Your task to perform on an android device: turn notification dots off Image 0: 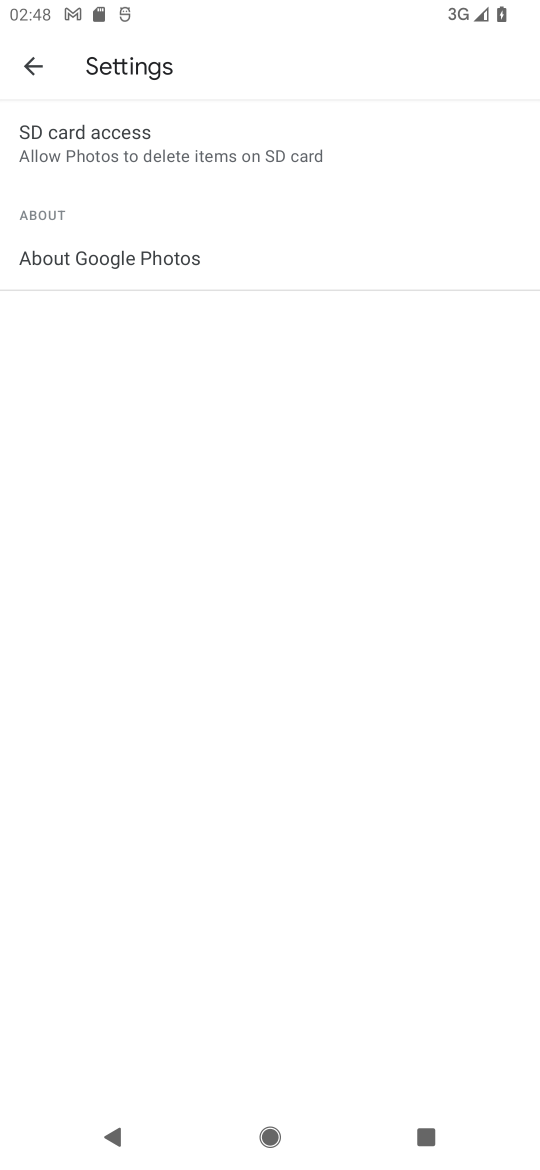
Step 0: press home button
Your task to perform on an android device: turn notification dots off Image 1: 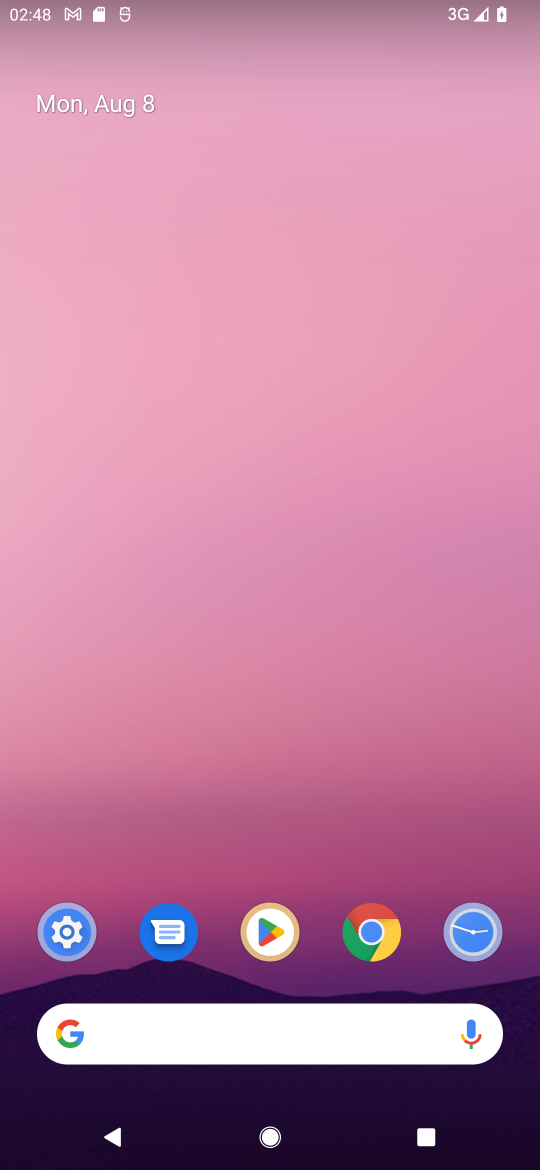
Step 1: drag from (226, 782) to (293, 46)
Your task to perform on an android device: turn notification dots off Image 2: 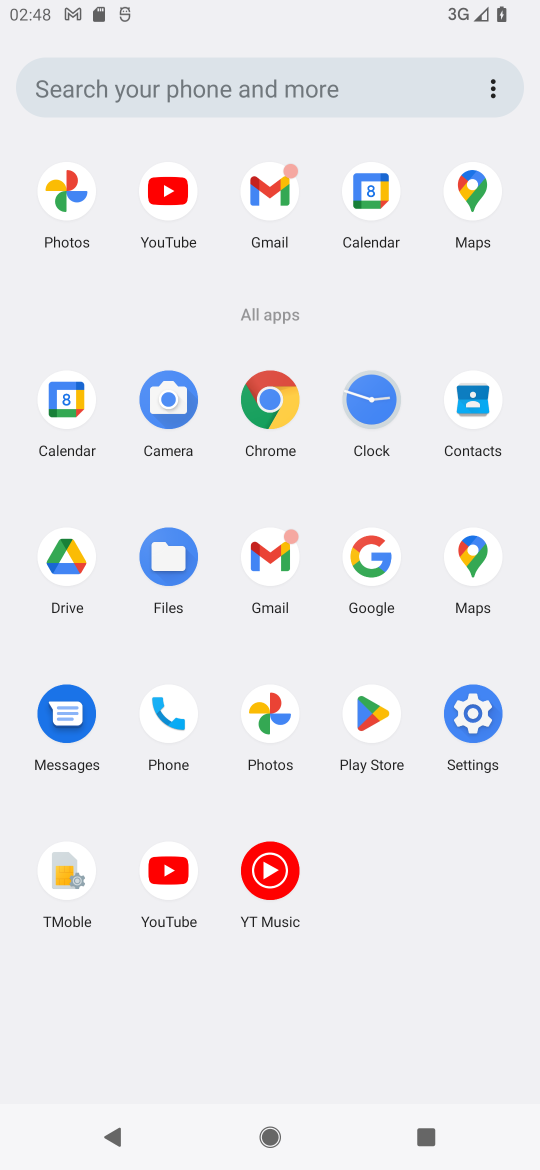
Step 2: click (478, 716)
Your task to perform on an android device: turn notification dots off Image 3: 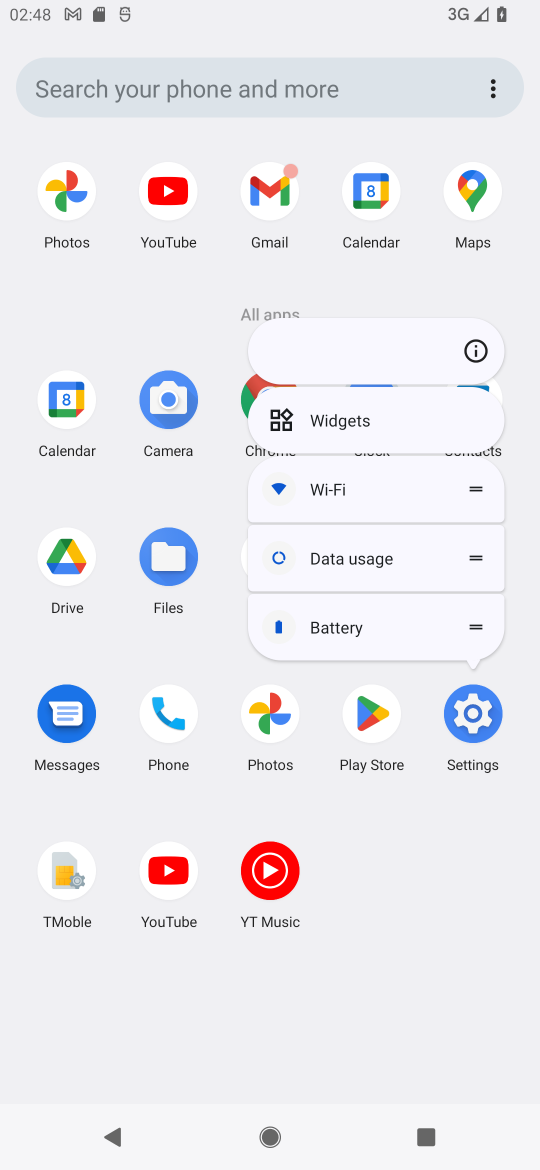
Step 3: click (476, 716)
Your task to perform on an android device: turn notification dots off Image 4: 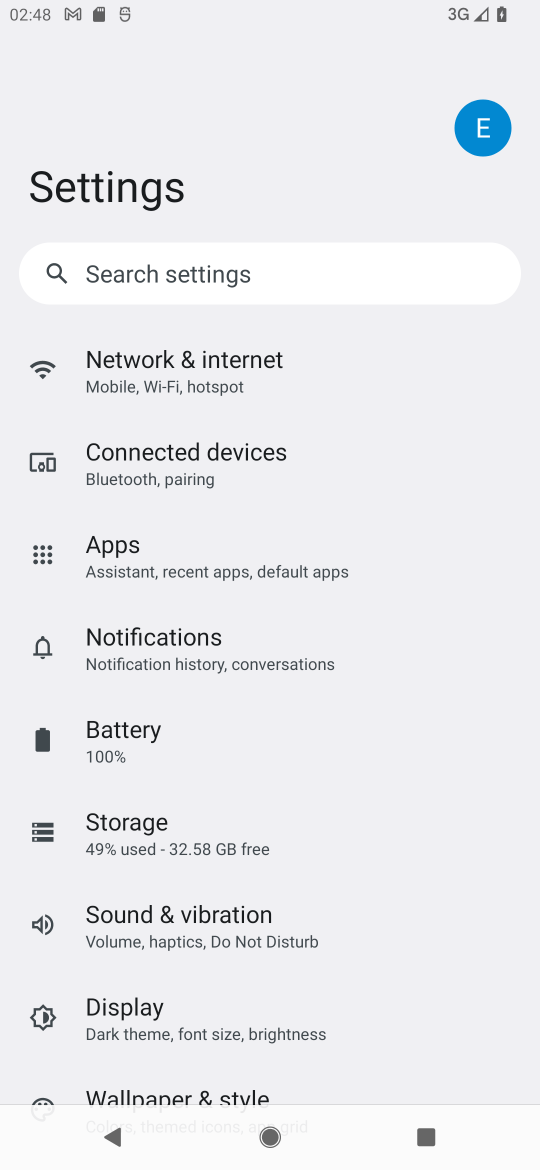
Step 4: click (202, 673)
Your task to perform on an android device: turn notification dots off Image 5: 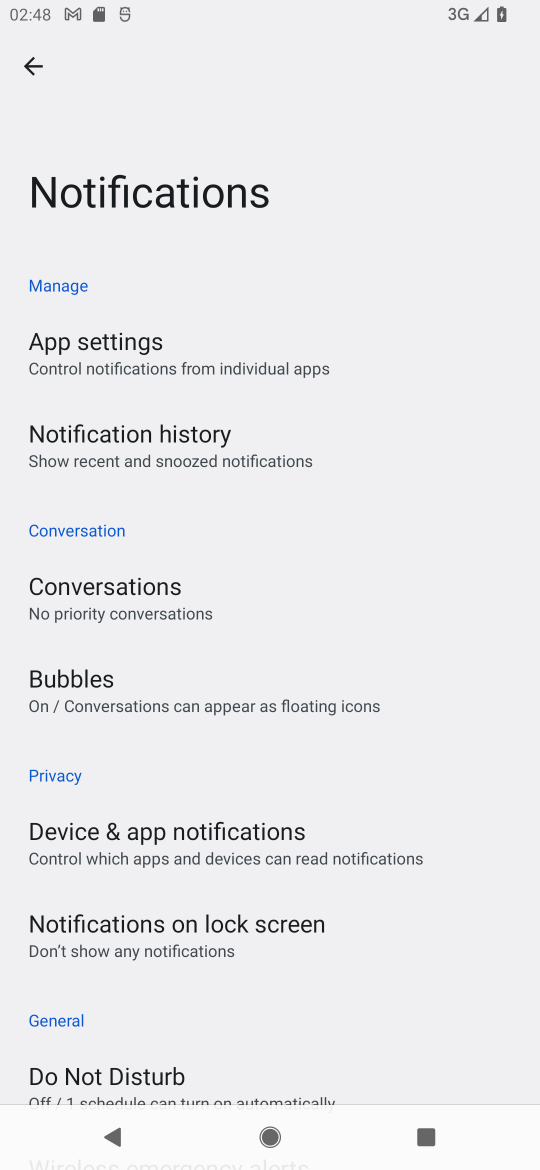
Step 5: drag from (170, 981) to (255, 347)
Your task to perform on an android device: turn notification dots off Image 6: 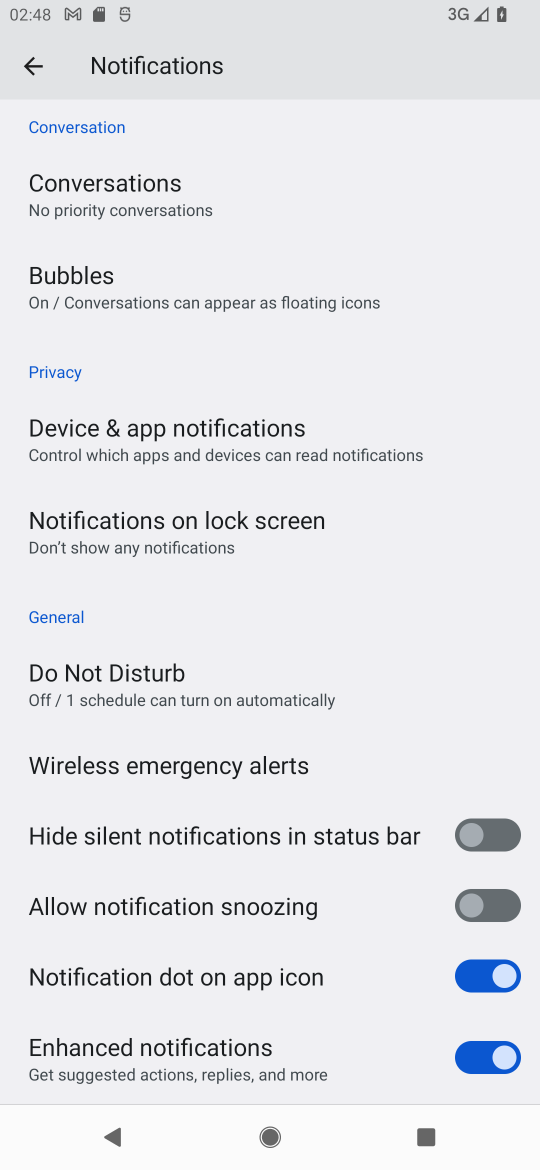
Step 6: drag from (222, 386) to (246, 1074)
Your task to perform on an android device: turn notification dots off Image 7: 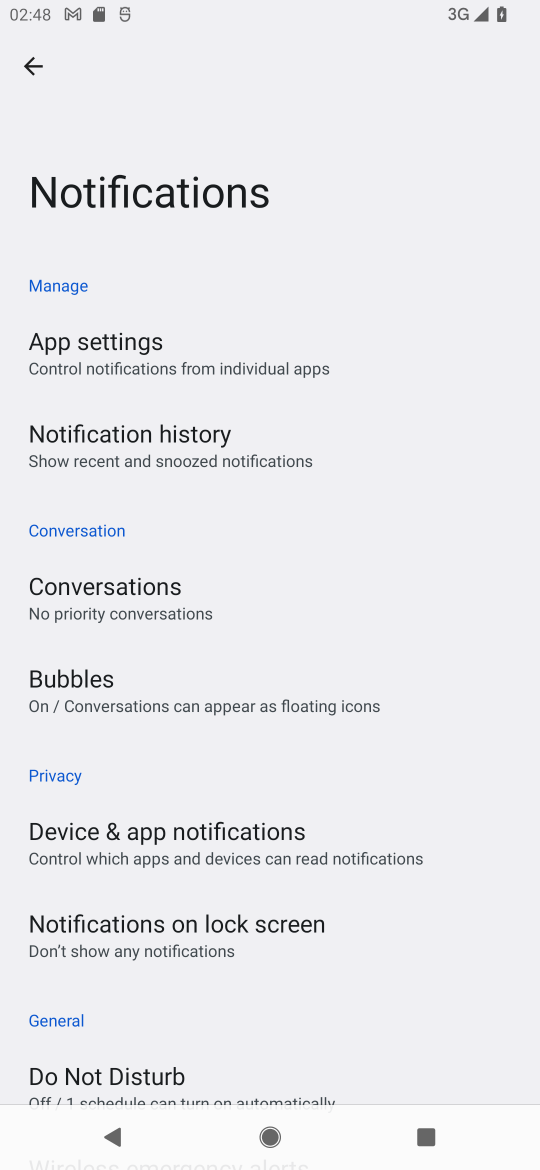
Step 7: drag from (268, 501) to (308, 960)
Your task to perform on an android device: turn notification dots off Image 8: 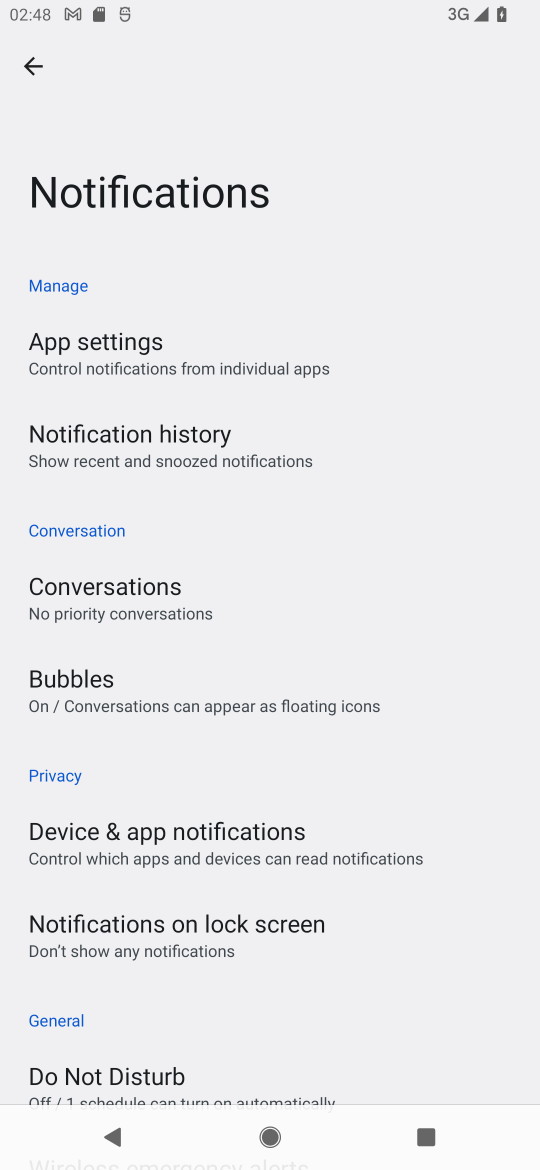
Step 8: drag from (330, 933) to (371, 303)
Your task to perform on an android device: turn notification dots off Image 9: 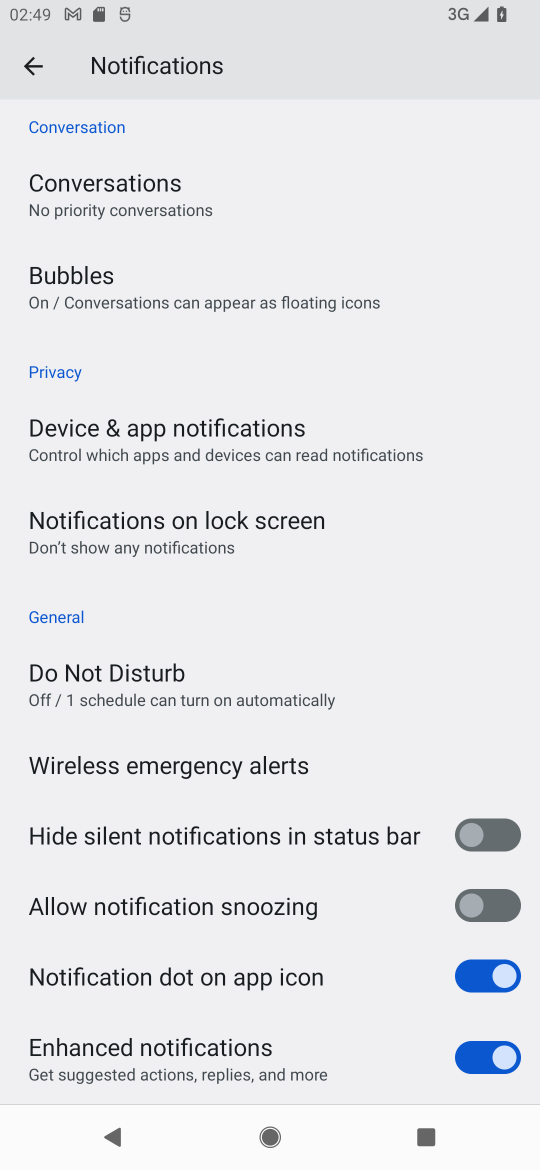
Step 9: drag from (324, 919) to (361, 464)
Your task to perform on an android device: turn notification dots off Image 10: 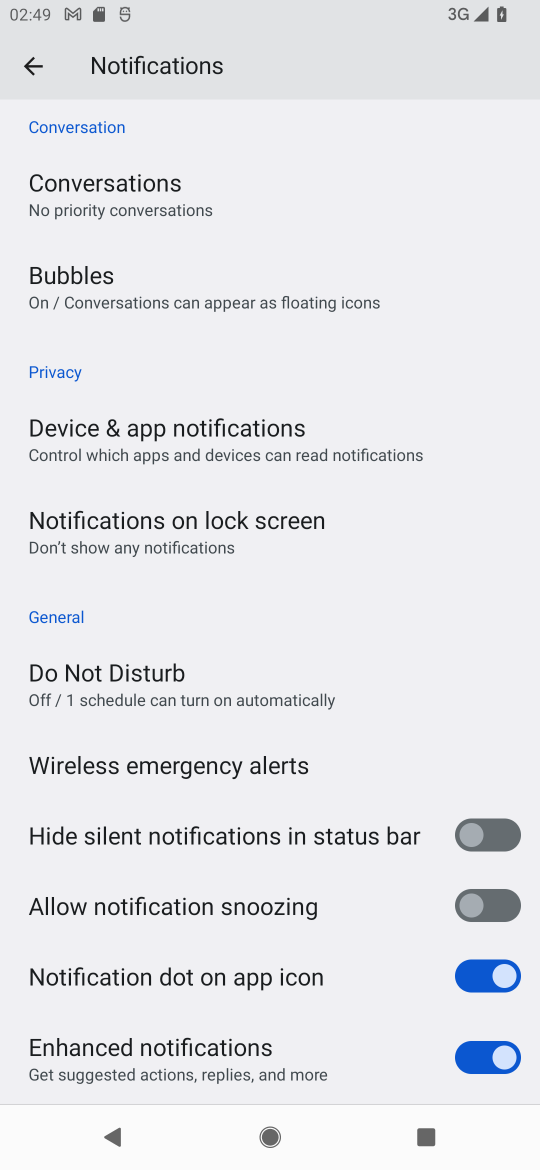
Step 10: click (183, 441)
Your task to perform on an android device: turn notification dots off Image 11: 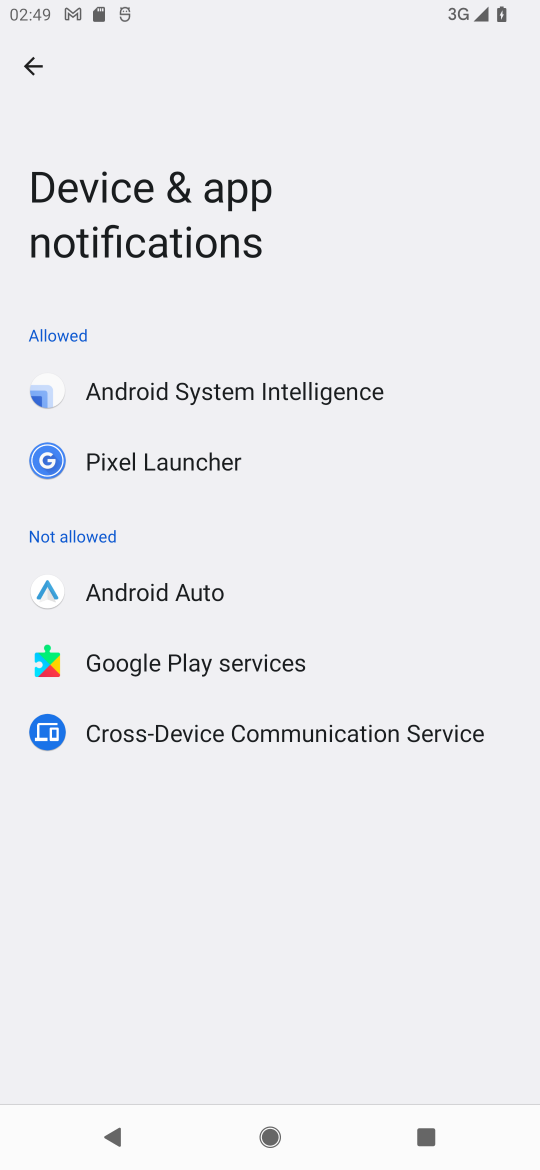
Step 11: click (31, 81)
Your task to perform on an android device: turn notification dots off Image 12: 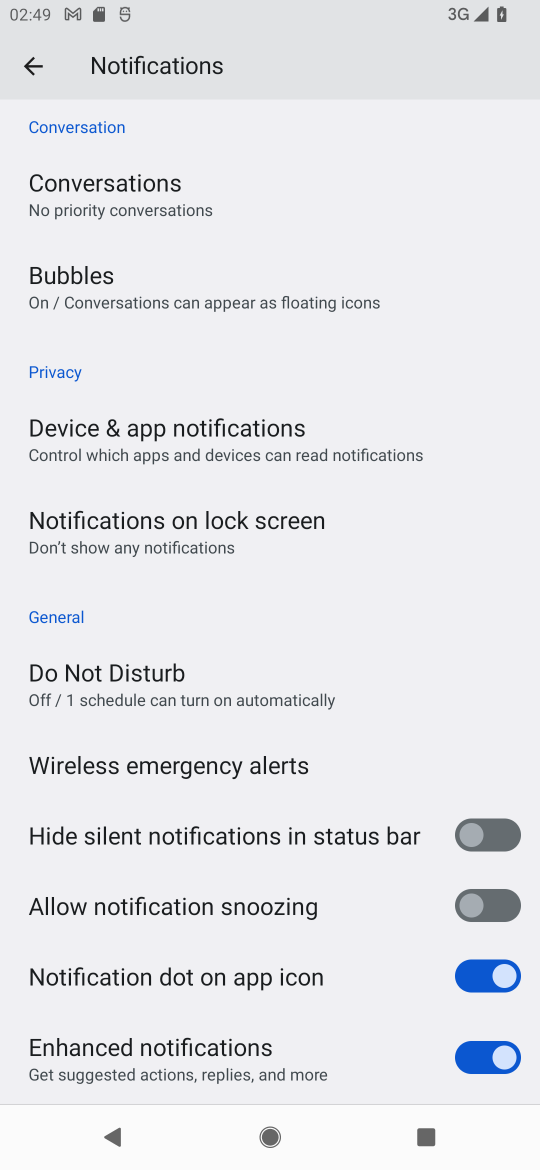
Step 12: click (172, 519)
Your task to perform on an android device: turn notification dots off Image 13: 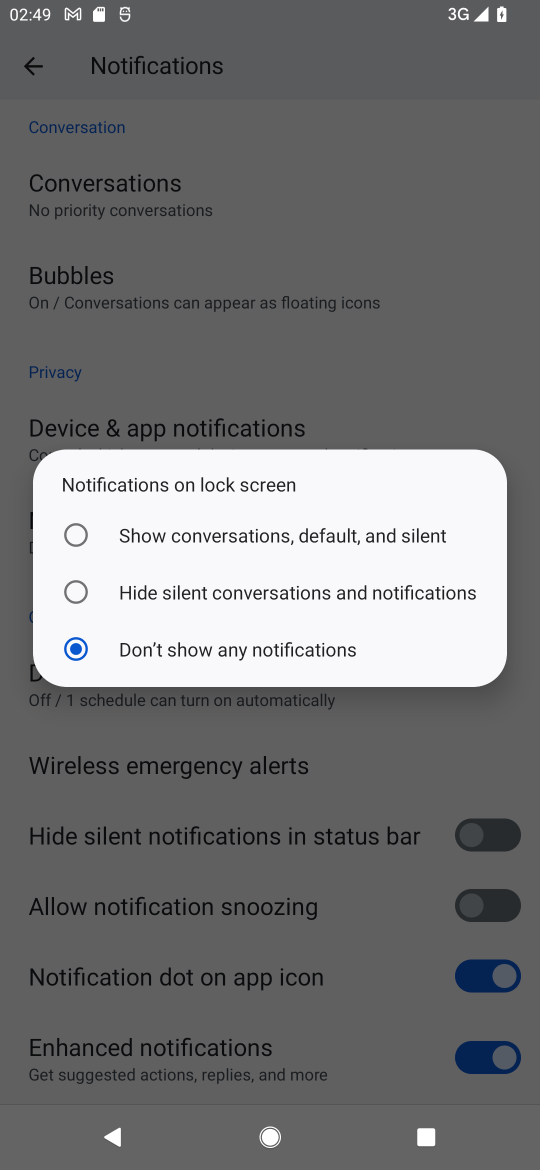
Step 13: task complete